Your task to perform on an android device: Go to network settings Image 0: 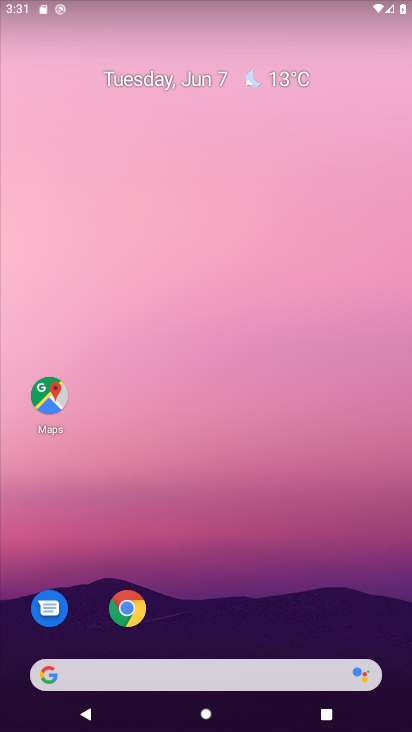
Step 0: drag from (236, 645) to (323, 604)
Your task to perform on an android device: Go to network settings Image 1: 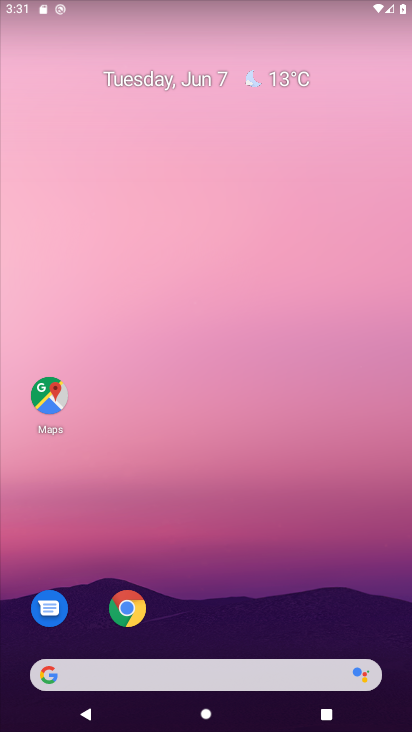
Step 1: click (114, 684)
Your task to perform on an android device: Go to network settings Image 2: 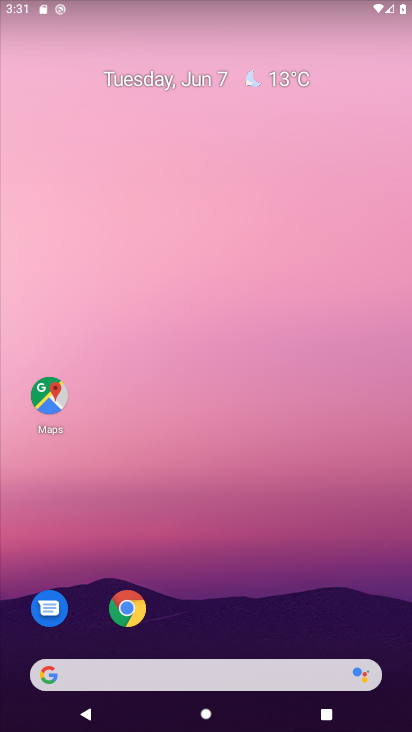
Step 2: drag from (209, 632) to (176, 28)
Your task to perform on an android device: Go to network settings Image 3: 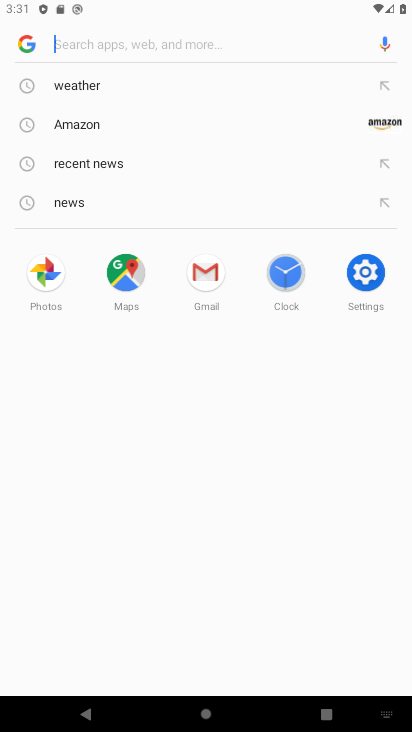
Step 3: press home button
Your task to perform on an android device: Go to network settings Image 4: 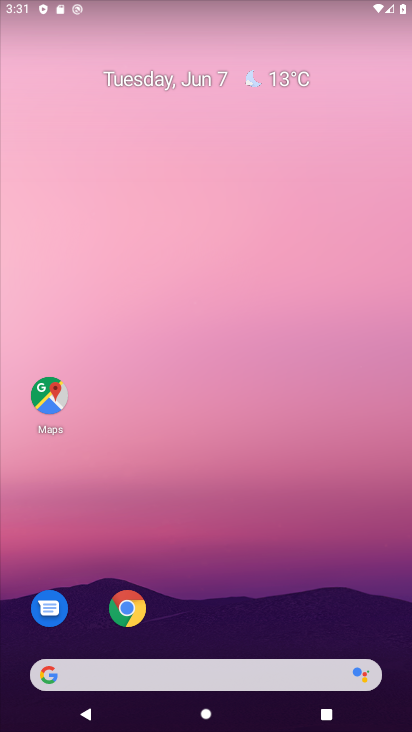
Step 4: drag from (197, 645) to (133, 8)
Your task to perform on an android device: Go to network settings Image 5: 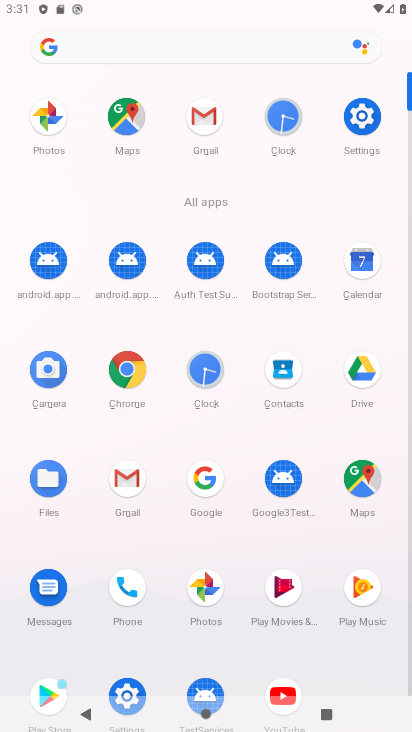
Step 5: click (360, 132)
Your task to perform on an android device: Go to network settings Image 6: 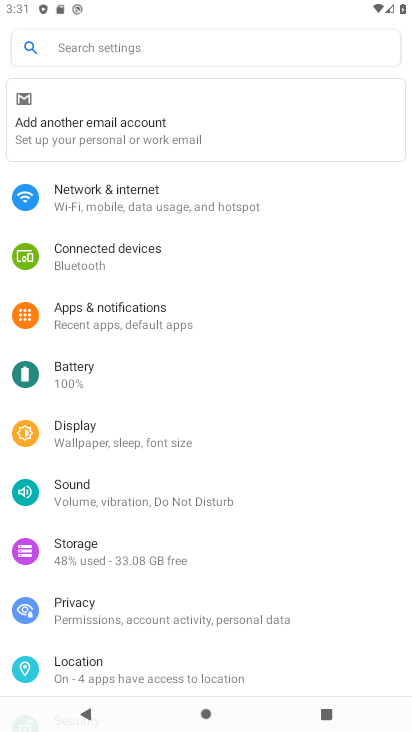
Step 6: click (149, 191)
Your task to perform on an android device: Go to network settings Image 7: 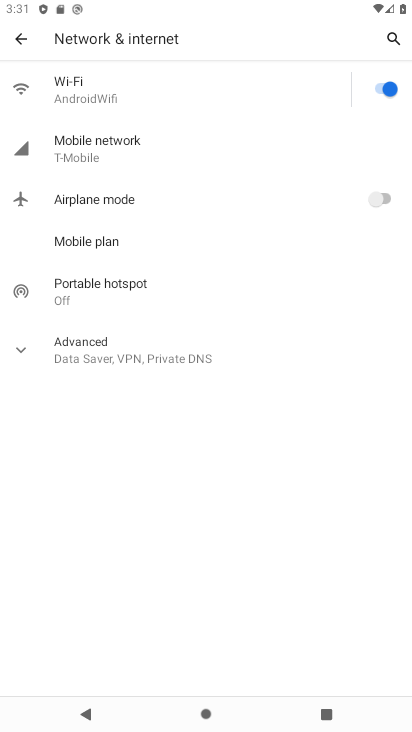
Step 7: click (92, 159)
Your task to perform on an android device: Go to network settings Image 8: 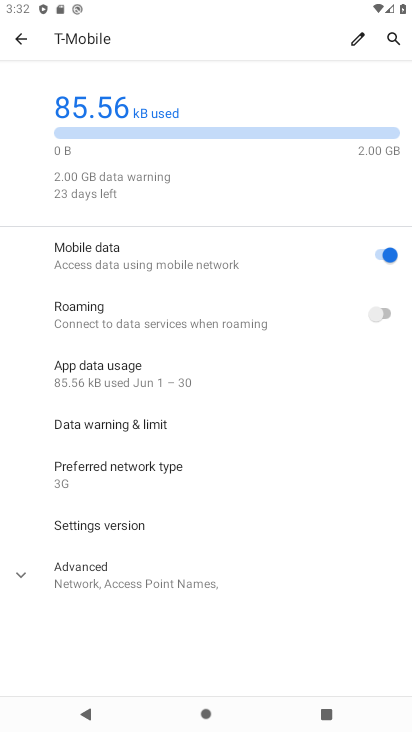
Step 8: task complete